Your task to perform on an android device: Open the Play Movies app and select the watchlist tab. Image 0: 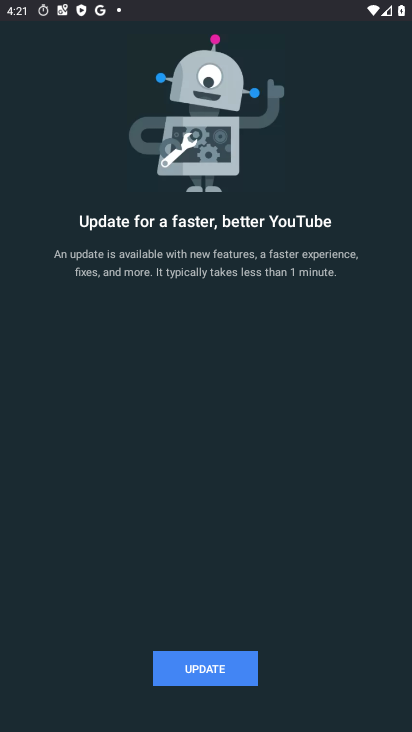
Step 0: press home button
Your task to perform on an android device: Open the Play Movies app and select the watchlist tab. Image 1: 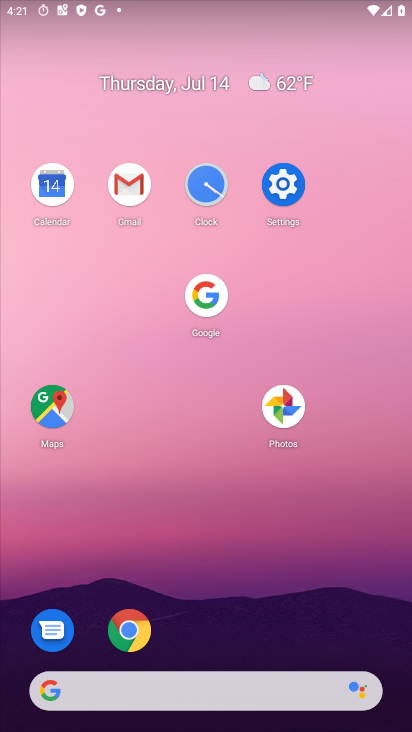
Step 1: drag from (214, 471) to (160, 62)
Your task to perform on an android device: Open the Play Movies app and select the watchlist tab. Image 2: 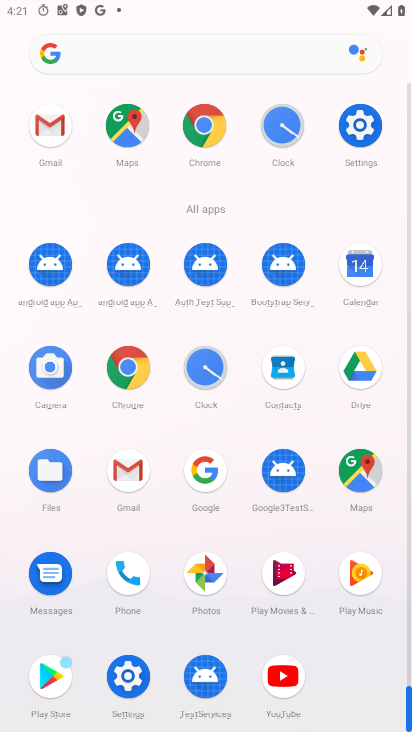
Step 2: click (288, 567)
Your task to perform on an android device: Open the Play Movies app and select the watchlist tab. Image 3: 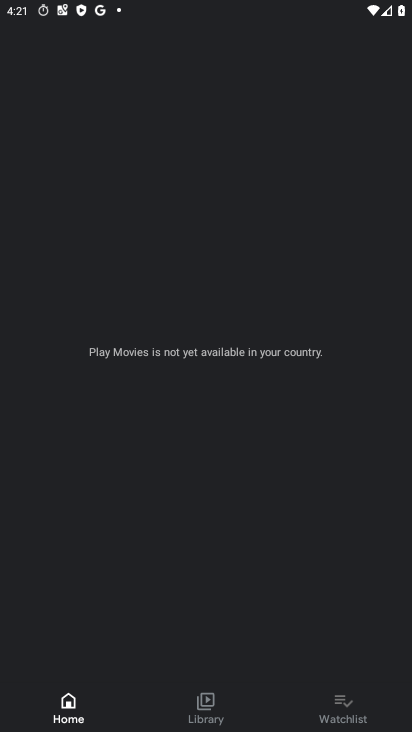
Step 3: click (316, 710)
Your task to perform on an android device: Open the Play Movies app and select the watchlist tab. Image 4: 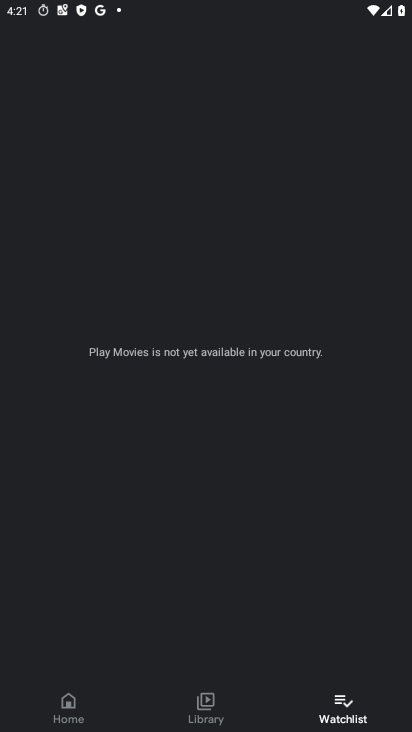
Step 4: task complete